Your task to perform on an android device: turn on priority inbox in the gmail app Image 0: 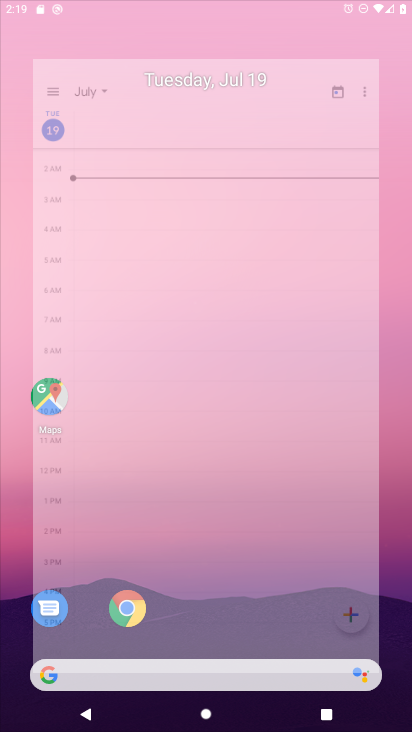
Step 0: drag from (255, 582) to (277, 139)
Your task to perform on an android device: turn on priority inbox in the gmail app Image 1: 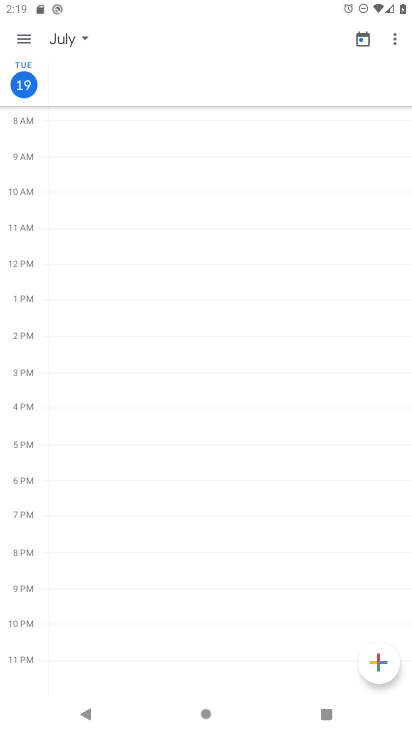
Step 1: press home button
Your task to perform on an android device: turn on priority inbox in the gmail app Image 2: 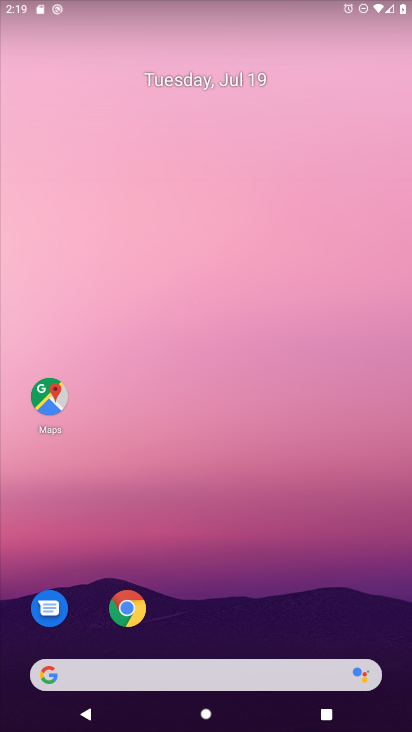
Step 2: drag from (277, 615) to (266, 125)
Your task to perform on an android device: turn on priority inbox in the gmail app Image 3: 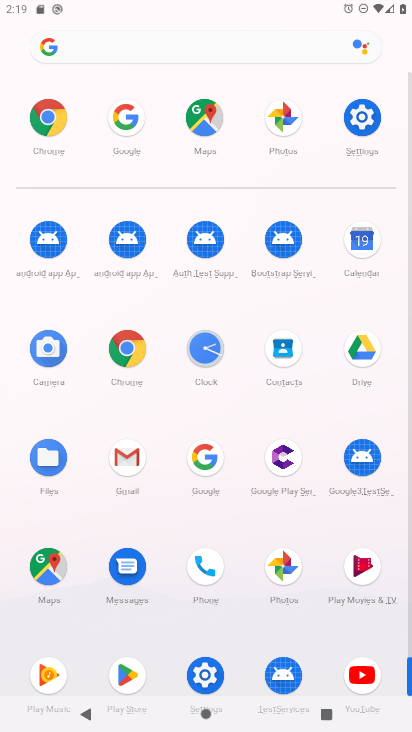
Step 3: click (132, 458)
Your task to perform on an android device: turn on priority inbox in the gmail app Image 4: 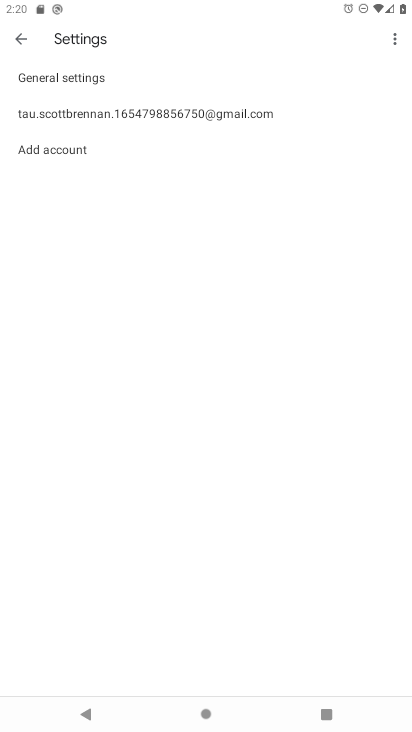
Step 4: click (78, 79)
Your task to perform on an android device: turn on priority inbox in the gmail app Image 5: 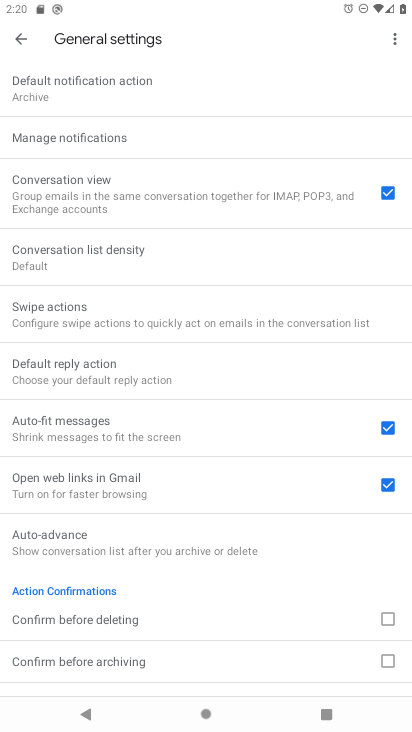
Step 5: drag from (151, 148) to (160, 519)
Your task to perform on an android device: turn on priority inbox in the gmail app Image 6: 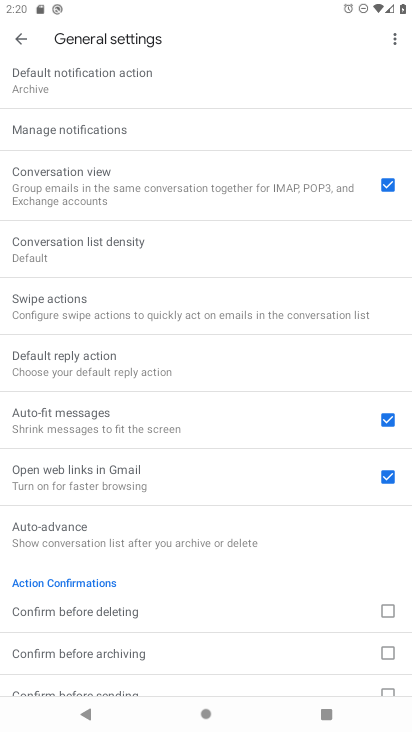
Step 6: drag from (145, 150) to (178, 520)
Your task to perform on an android device: turn on priority inbox in the gmail app Image 7: 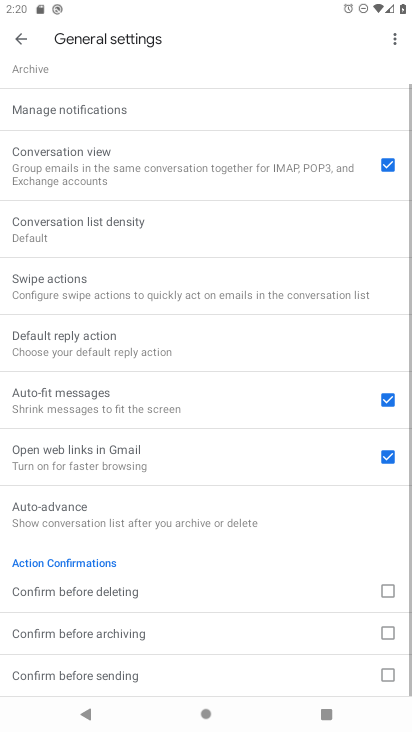
Step 7: drag from (119, 191) to (106, 443)
Your task to perform on an android device: turn on priority inbox in the gmail app Image 8: 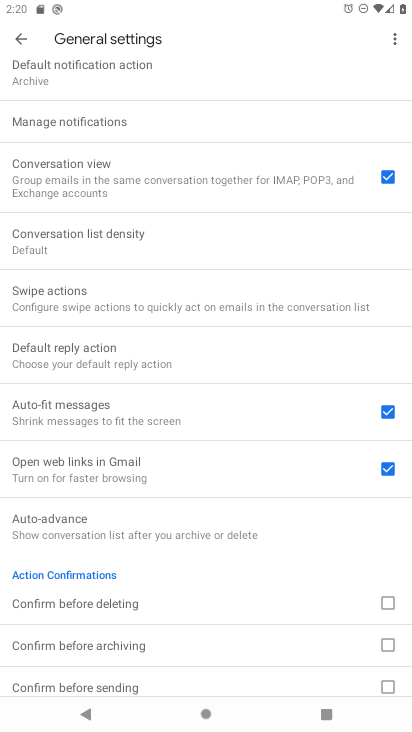
Step 8: click (18, 46)
Your task to perform on an android device: turn on priority inbox in the gmail app Image 9: 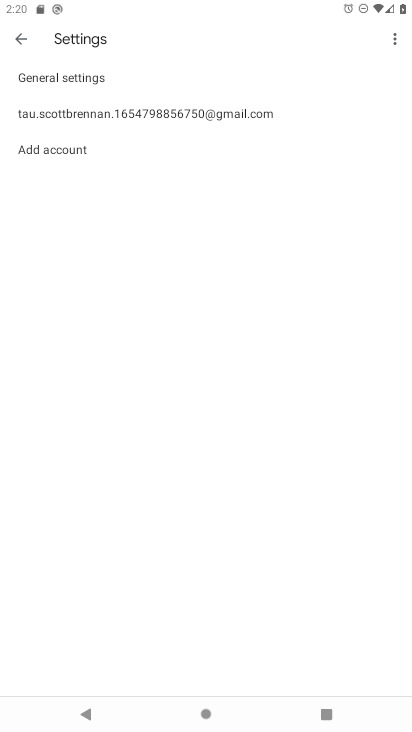
Step 9: click (104, 119)
Your task to perform on an android device: turn on priority inbox in the gmail app Image 10: 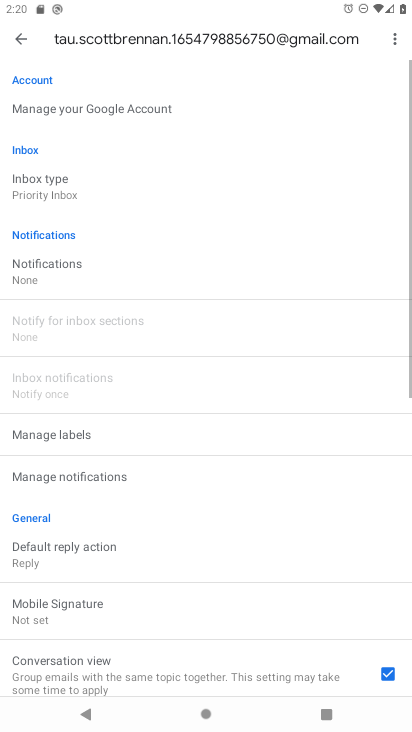
Step 10: click (83, 185)
Your task to perform on an android device: turn on priority inbox in the gmail app Image 11: 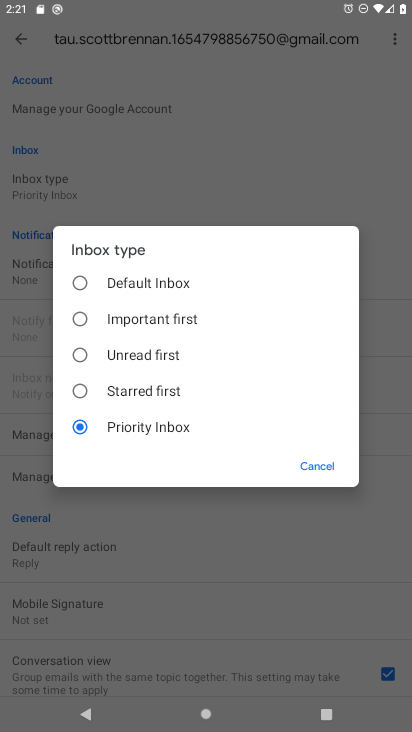
Step 11: task complete